Your task to perform on an android device: set the timer Image 0: 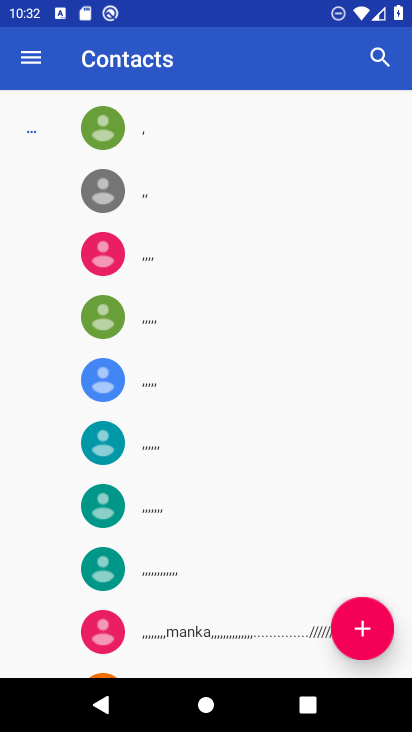
Step 0: press home button
Your task to perform on an android device: set the timer Image 1: 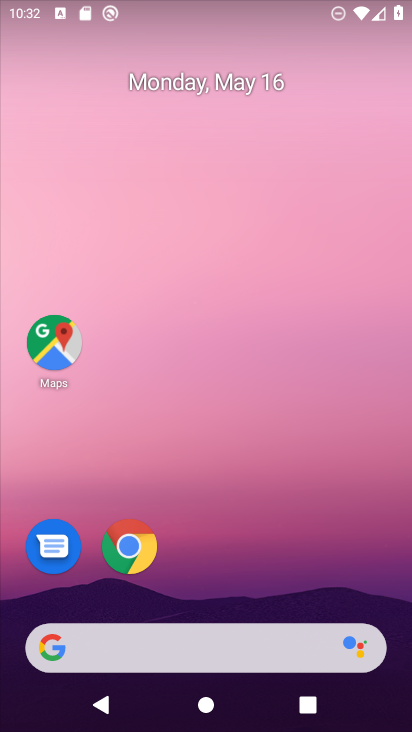
Step 1: drag from (181, 599) to (245, 30)
Your task to perform on an android device: set the timer Image 2: 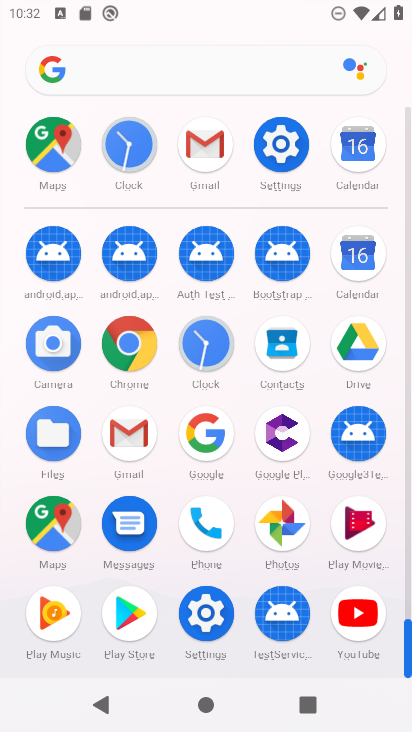
Step 2: click (125, 165)
Your task to perform on an android device: set the timer Image 3: 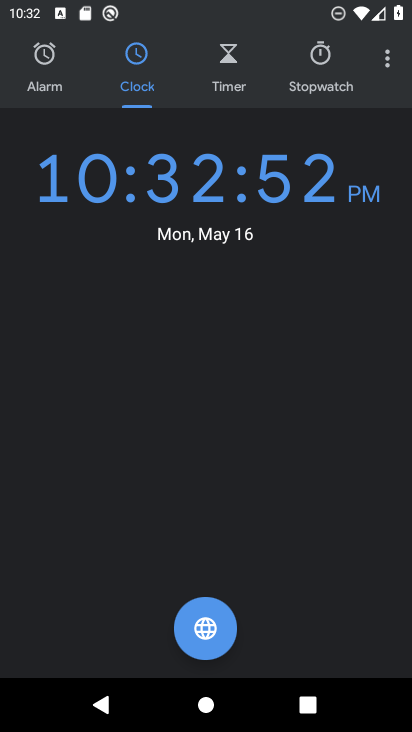
Step 3: click (229, 79)
Your task to perform on an android device: set the timer Image 4: 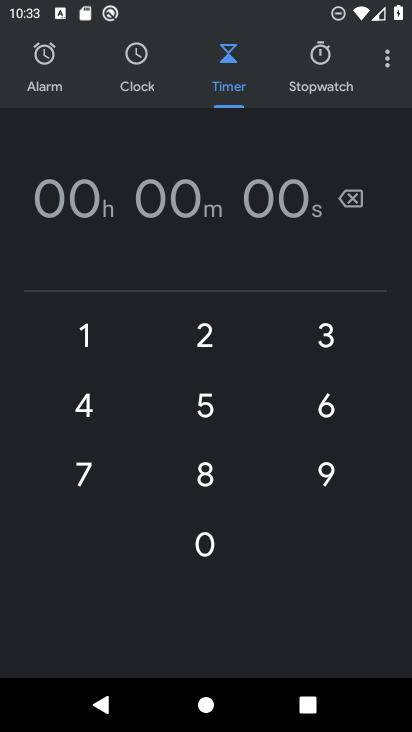
Step 4: click (322, 471)
Your task to perform on an android device: set the timer Image 5: 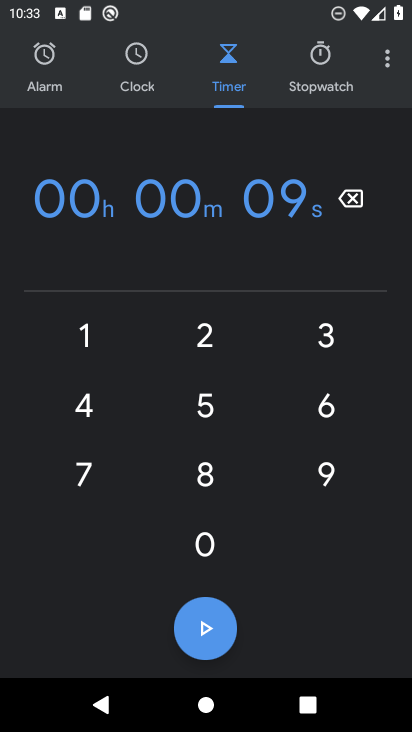
Step 5: click (213, 624)
Your task to perform on an android device: set the timer Image 6: 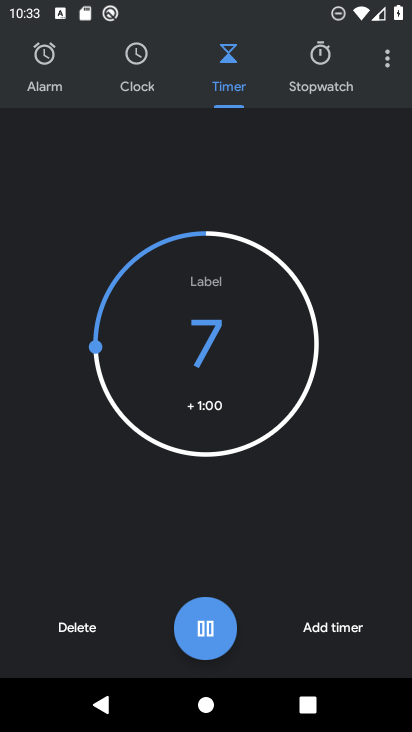
Step 6: task complete